Your task to perform on an android device: Is it going to rain today? Image 0: 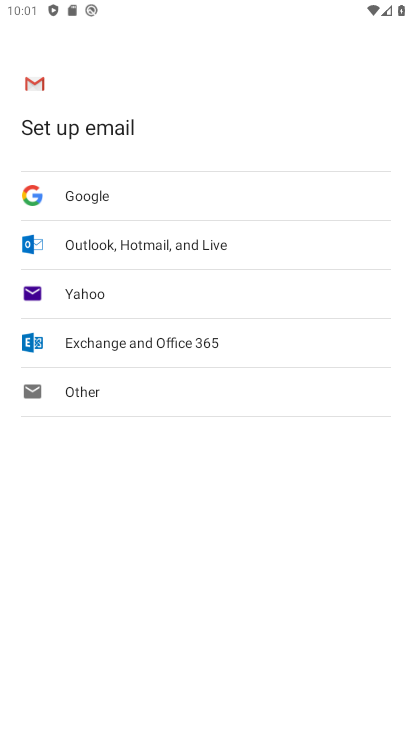
Step 0: press home button
Your task to perform on an android device: Is it going to rain today? Image 1: 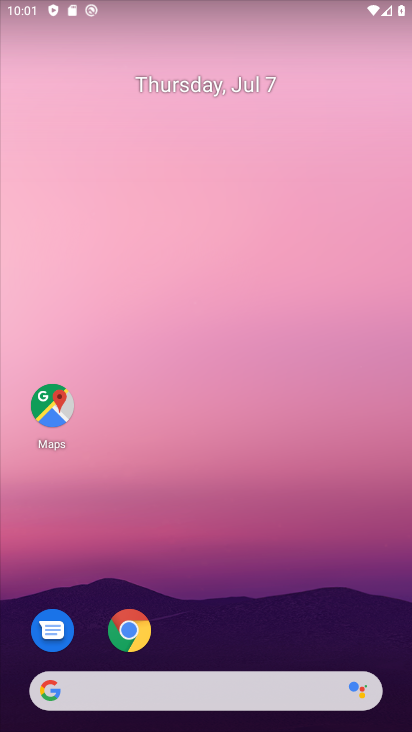
Step 1: click (116, 695)
Your task to perform on an android device: Is it going to rain today? Image 2: 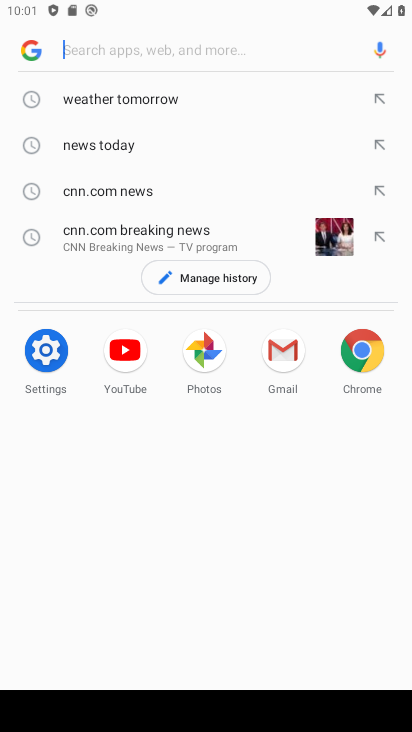
Step 2: type "Is it going to rain today?"
Your task to perform on an android device: Is it going to rain today? Image 3: 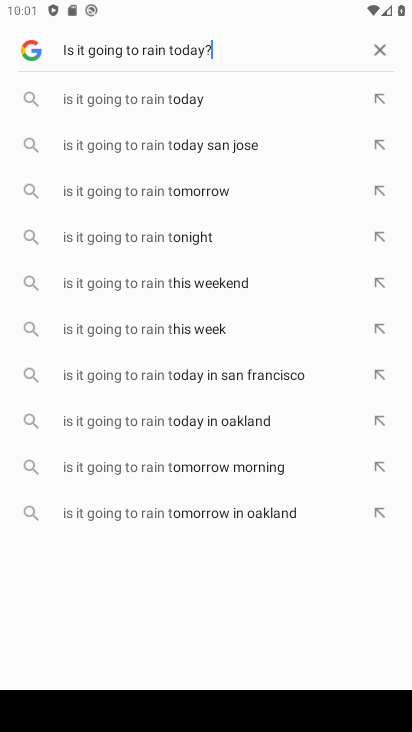
Step 3: type ""
Your task to perform on an android device: Is it going to rain today? Image 4: 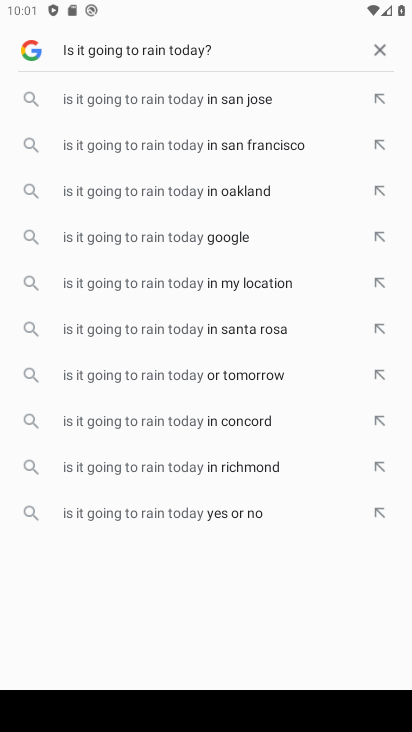
Step 4: type "  "
Your task to perform on an android device: Is it going to rain today? Image 5: 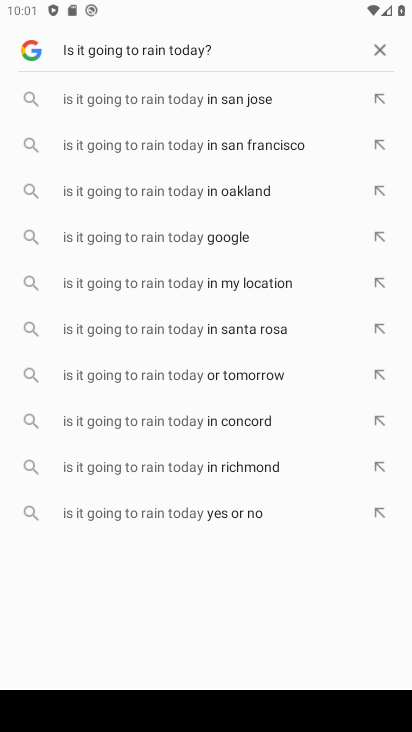
Step 5: task complete